Your task to perform on an android device: open app "Instagram" (install if not already installed), go to login, and select forgot password Image 0: 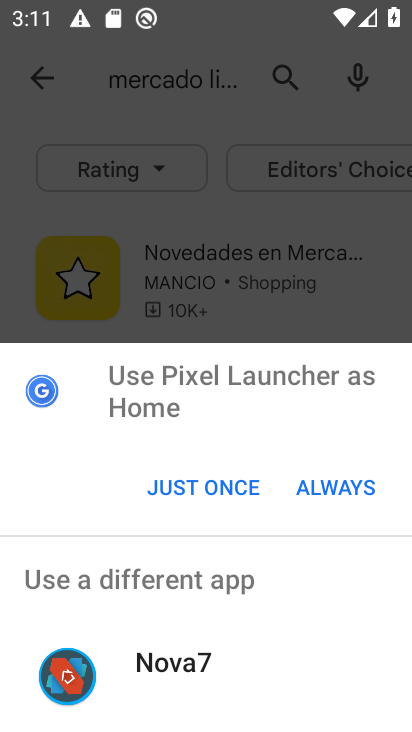
Step 0: click (185, 488)
Your task to perform on an android device: open app "Instagram" (install if not already installed), go to login, and select forgot password Image 1: 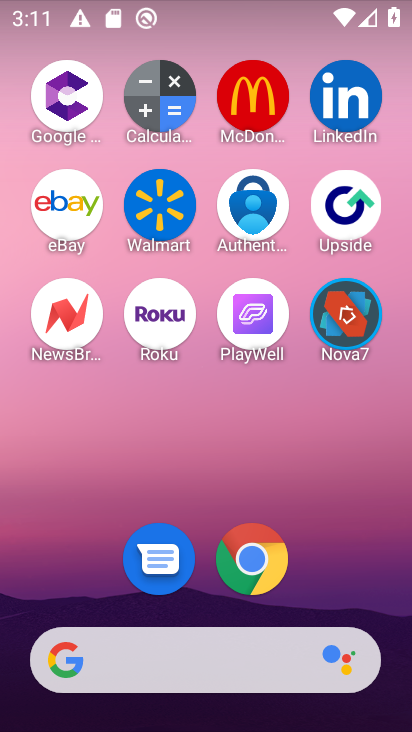
Step 1: drag from (104, 617) to (104, 170)
Your task to perform on an android device: open app "Instagram" (install if not already installed), go to login, and select forgot password Image 2: 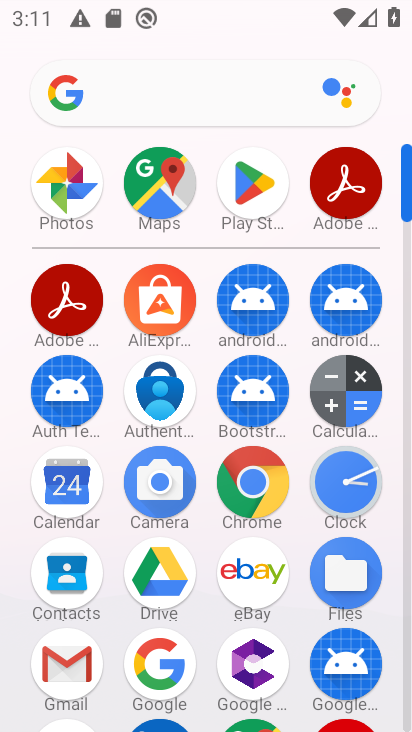
Step 2: click (242, 189)
Your task to perform on an android device: open app "Instagram" (install if not already installed), go to login, and select forgot password Image 3: 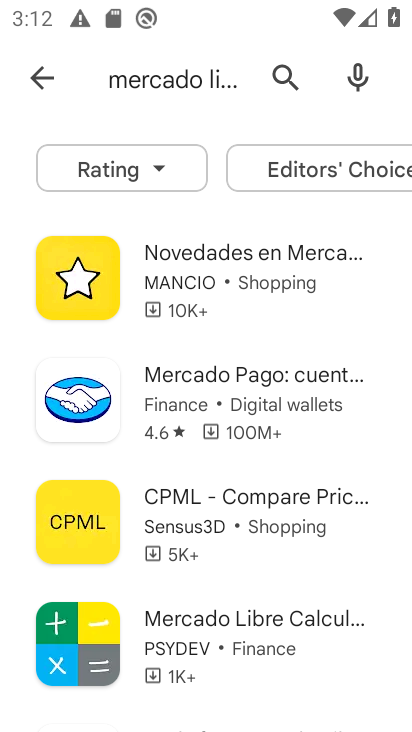
Step 3: click (282, 70)
Your task to perform on an android device: open app "Instagram" (install if not already installed), go to login, and select forgot password Image 4: 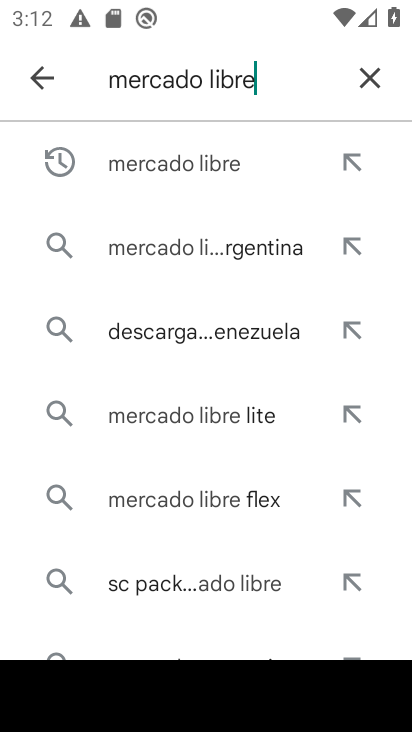
Step 4: click (364, 75)
Your task to perform on an android device: open app "Instagram" (install if not already installed), go to login, and select forgot password Image 5: 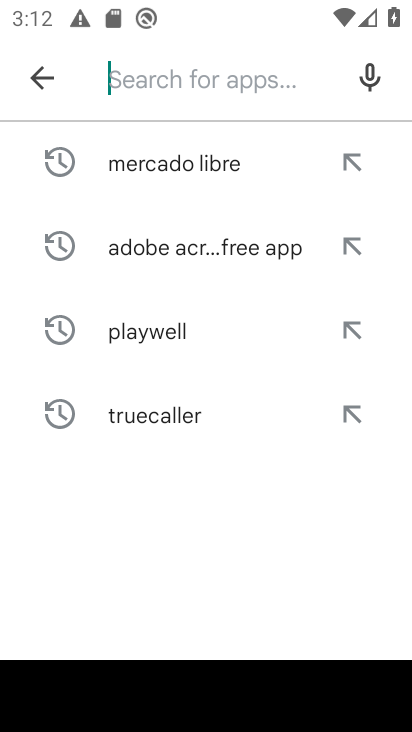
Step 5: type "Instagram"
Your task to perform on an android device: open app "Instagram" (install if not already installed), go to login, and select forgot password Image 6: 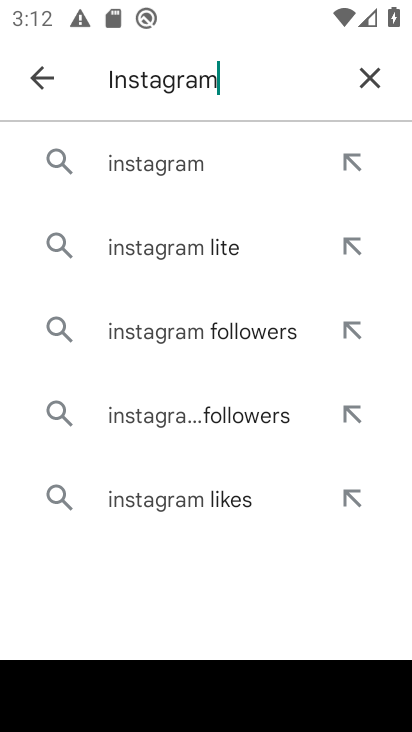
Step 6: click (119, 171)
Your task to perform on an android device: open app "Instagram" (install if not already installed), go to login, and select forgot password Image 7: 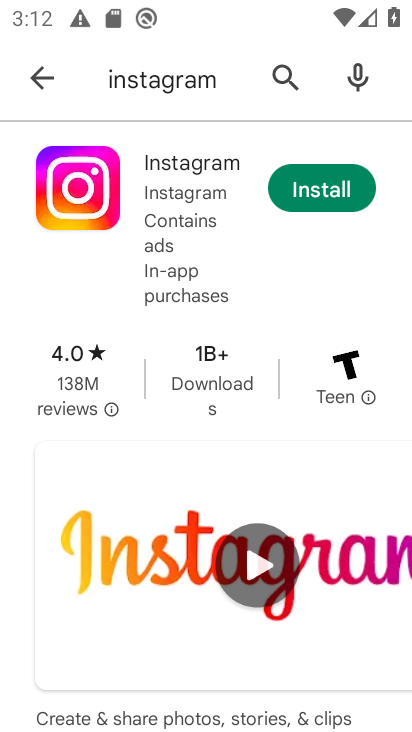
Step 7: click (302, 188)
Your task to perform on an android device: open app "Instagram" (install if not already installed), go to login, and select forgot password Image 8: 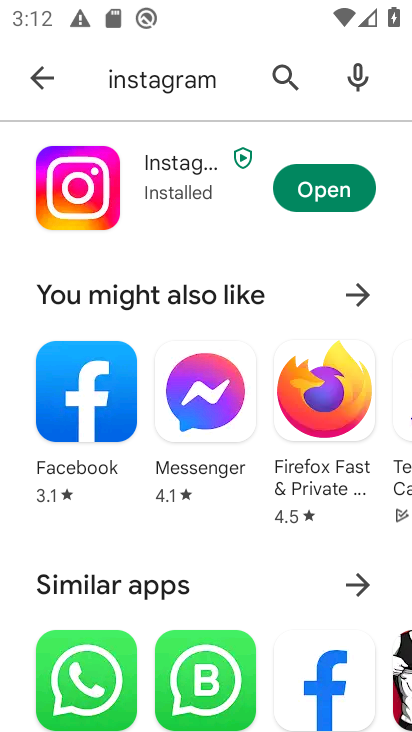
Step 8: click (343, 186)
Your task to perform on an android device: open app "Instagram" (install if not already installed), go to login, and select forgot password Image 9: 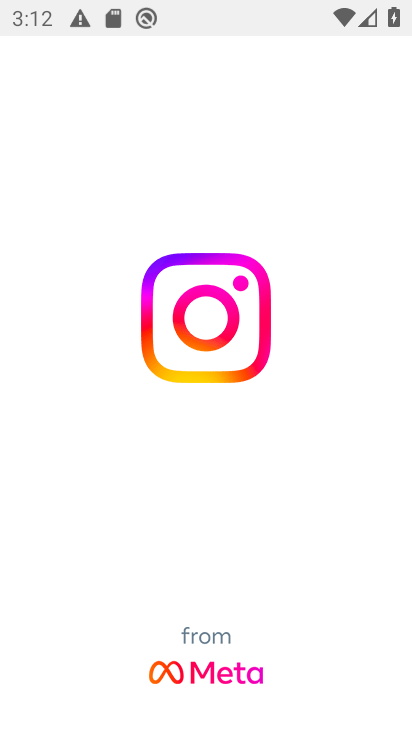
Step 9: task complete